Your task to perform on an android device: Open maps Image 0: 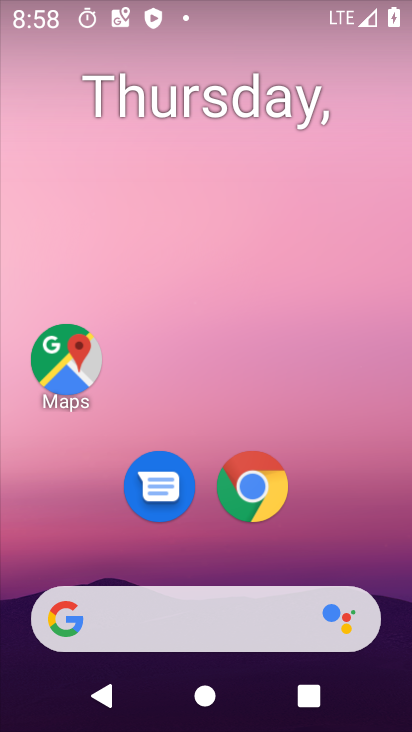
Step 0: drag from (177, 675) to (237, 240)
Your task to perform on an android device: Open maps Image 1: 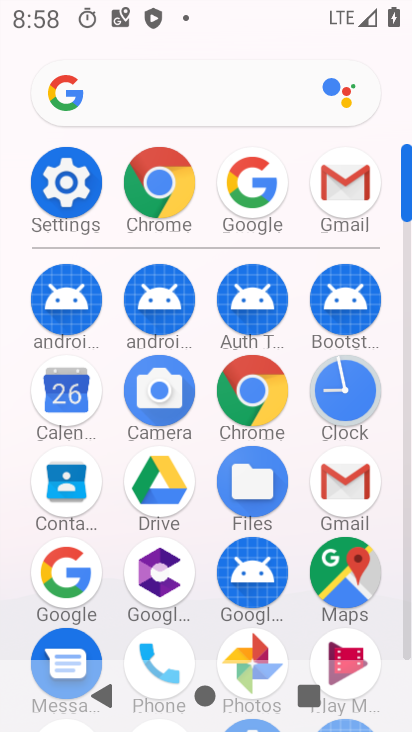
Step 1: click (349, 570)
Your task to perform on an android device: Open maps Image 2: 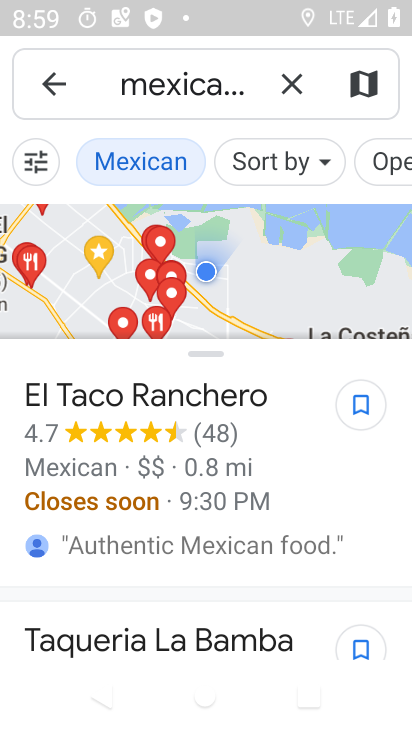
Step 2: task complete